Your task to perform on an android device: open wifi settings Image 0: 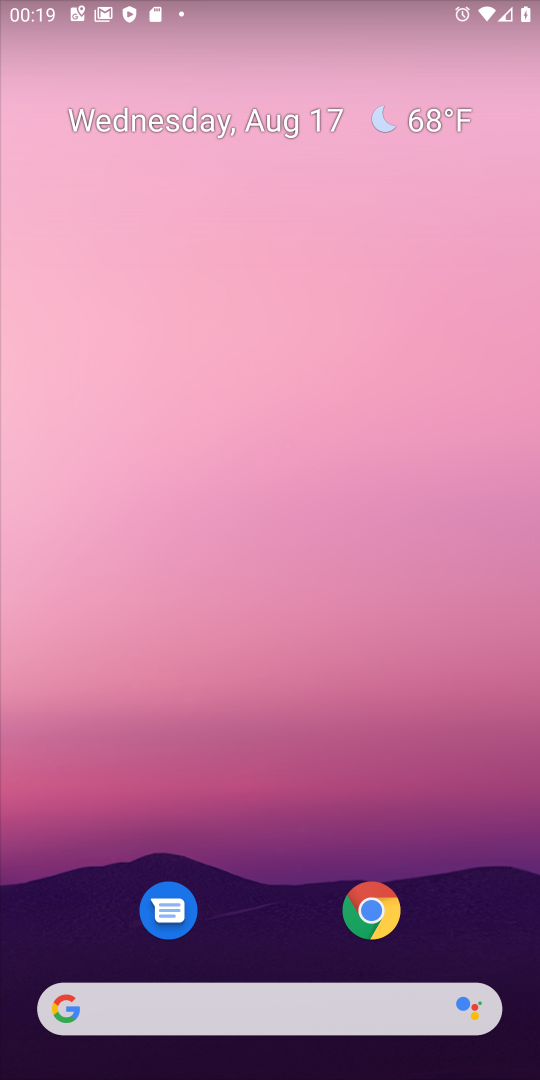
Step 0: drag from (265, 853) to (338, 76)
Your task to perform on an android device: open wifi settings Image 1: 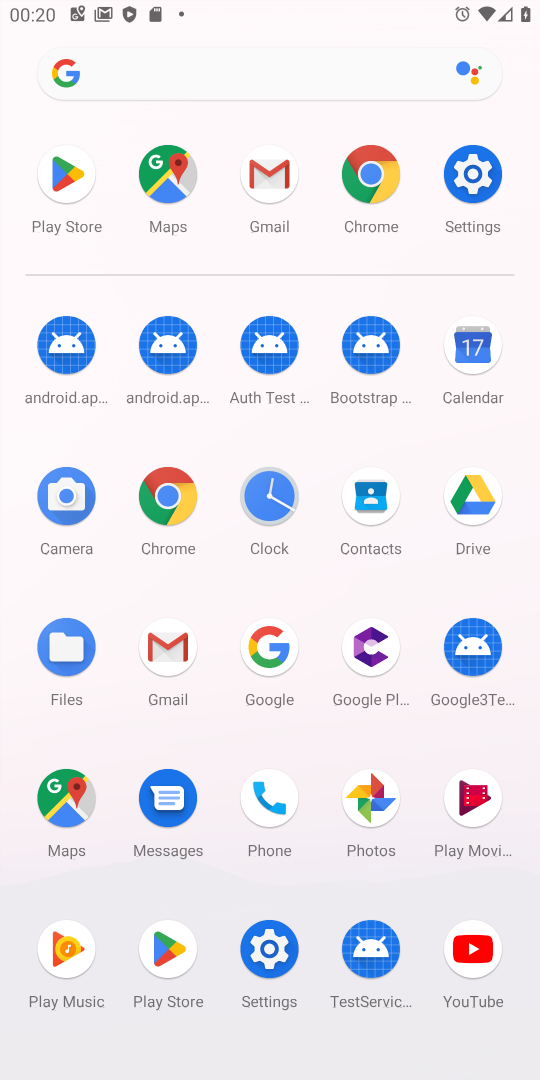
Step 1: click (259, 947)
Your task to perform on an android device: open wifi settings Image 2: 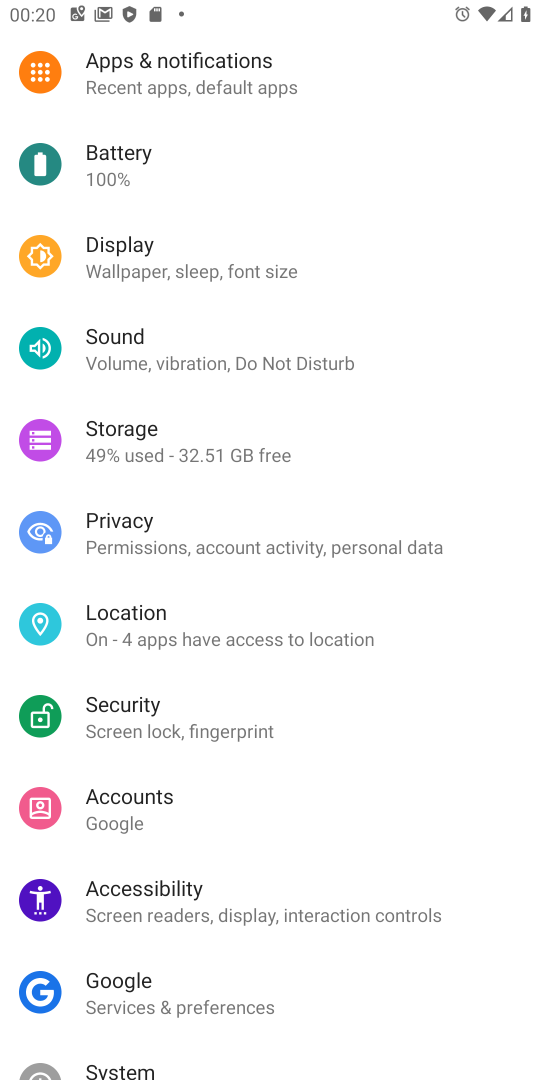
Step 2: drag from (251, 215) to (218, 895)
Your task to perform on an android device: open wifi settings Image 3: 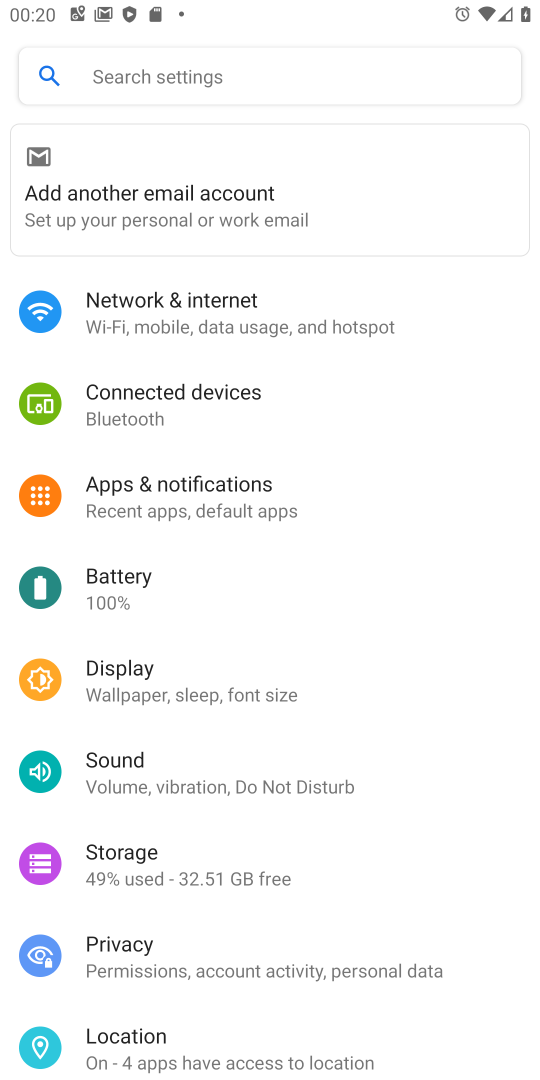
Step 3: click (218, 320)
Your task to perform on an android device: open wifi settings Image 4: 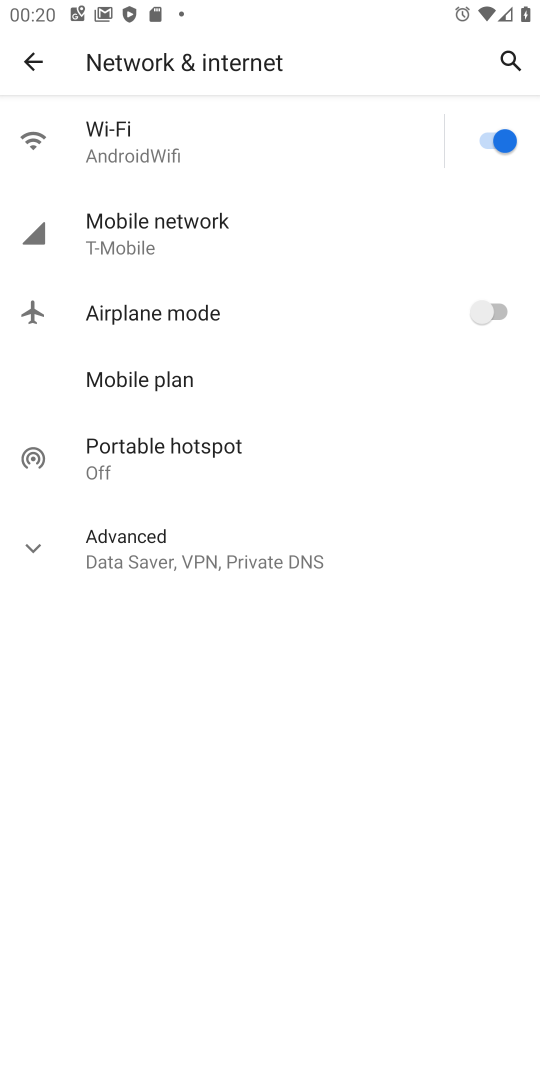
Step 4: click (214, 149)
Your task to perform on an android device: open wifi settings Image 5: 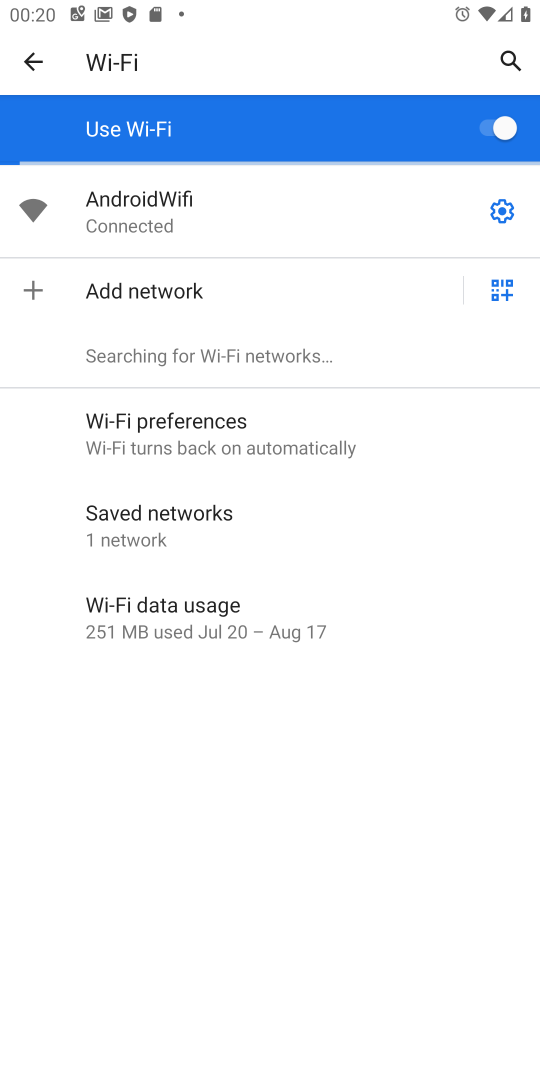
Step 5: click (503, 209)
Your task to perform on an android device: open wifi settings Image 6: 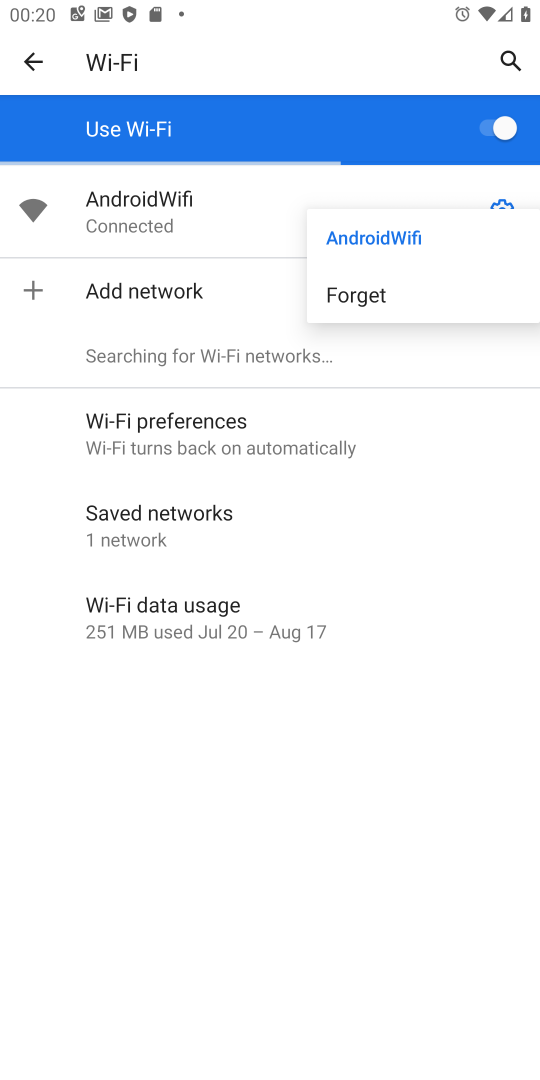
Step 6: click (221, 215)
Your task to perform on an android device: open wifi settings Image 7: 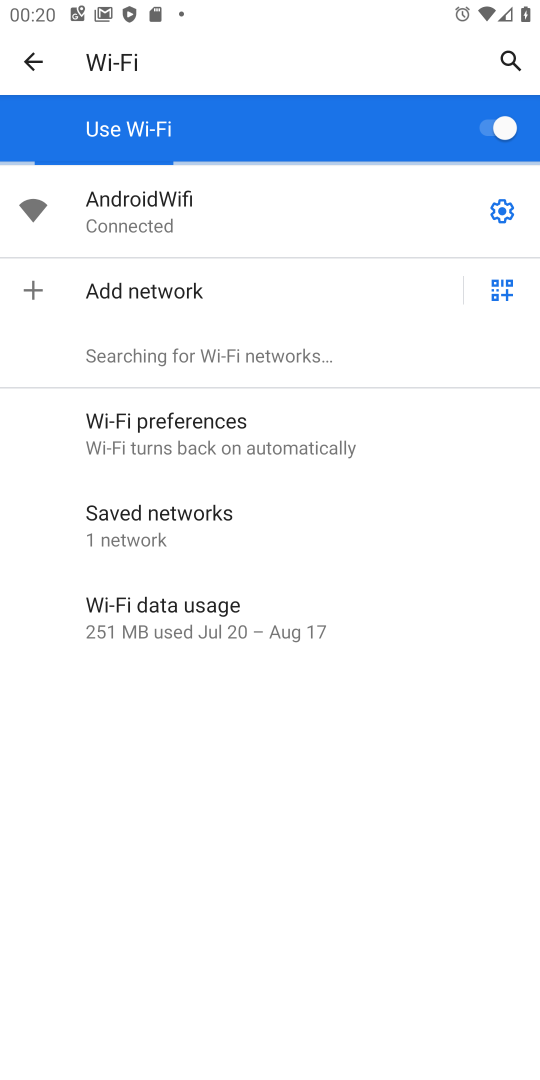
Step 7: click (513, 206)
Your task to perform on an android device: open wifi settings Image 8: 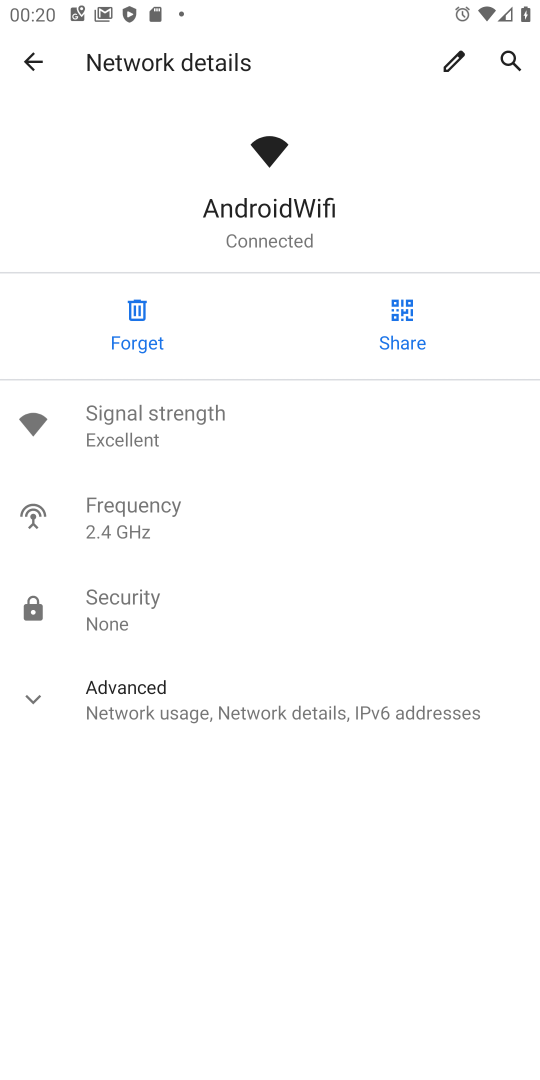
Step 8: task complete